Your task to perform on an android device: create a new album in the google photos Image 0: 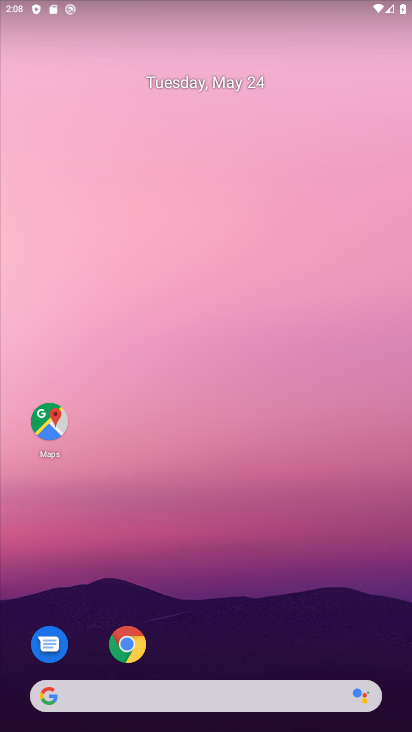
Step 0: drag from (243, 645) to (222, 60)
Your task to perform on an android device: create a new album in the google photos Image 1: 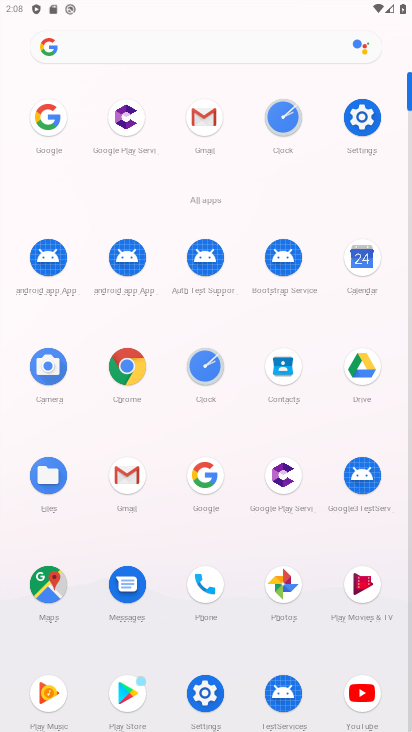
Step 1: click (275, 581)
Your task to perform on an android device: create a new album in the google photos Image 2: 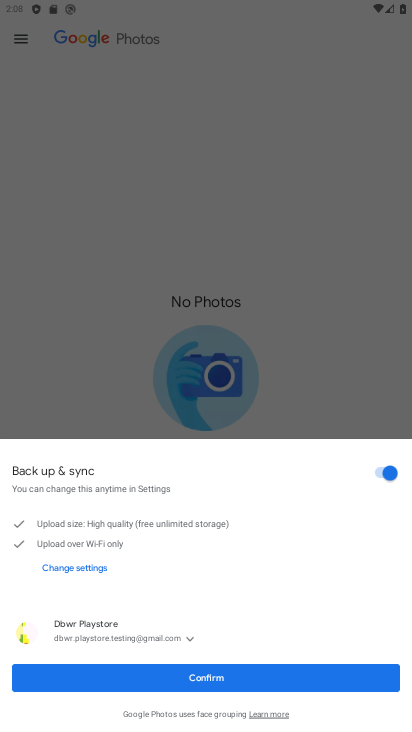
Step 2: click (205, 678)
Your task to perform on an android device: create a new album in the google photos Image 3: 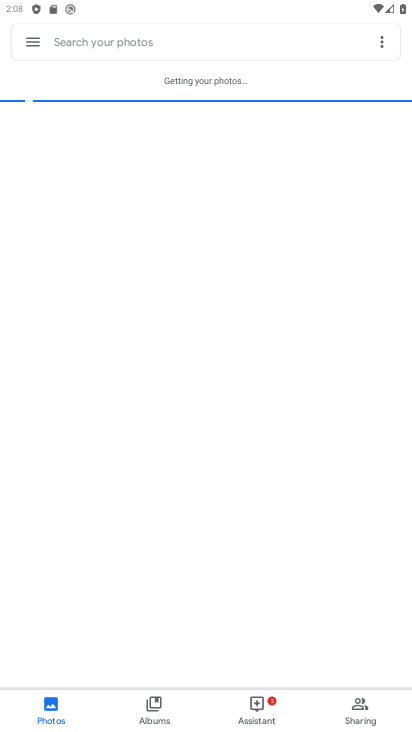
Step 3: click (160, 706)
Your task to perform on an android device: create a new album in the google photos Image 4: 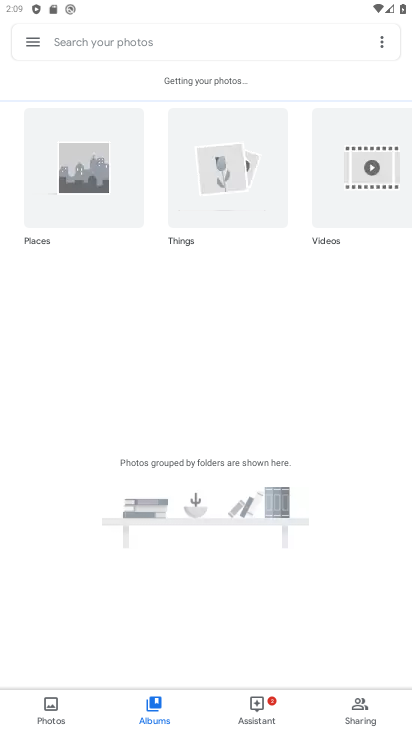
Step 4: task complete